Your task to perform on an android device: set the timer Image 0: 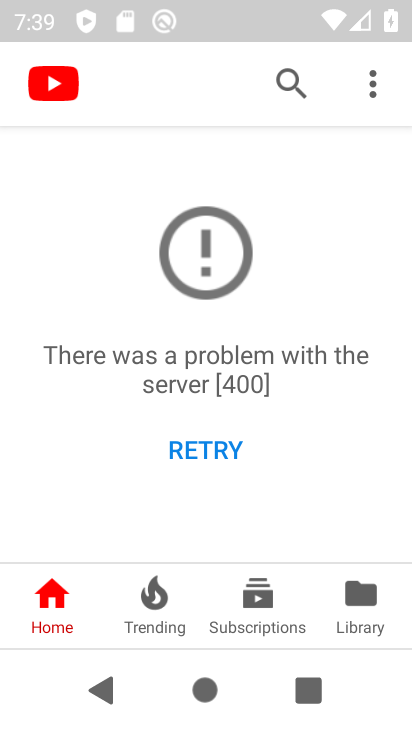
Step 0: press back button
Your task to perform on an android device: set the timer Image 1: 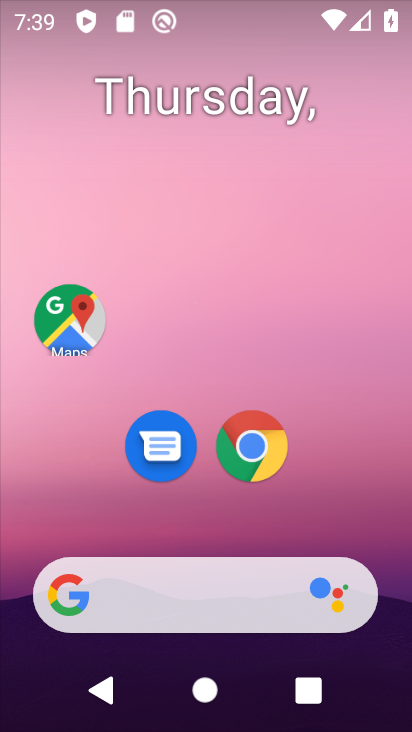
Step 1: drag from (324, 591) to (272, 0)
Your task to perform on an android device: set the timer Image 2: 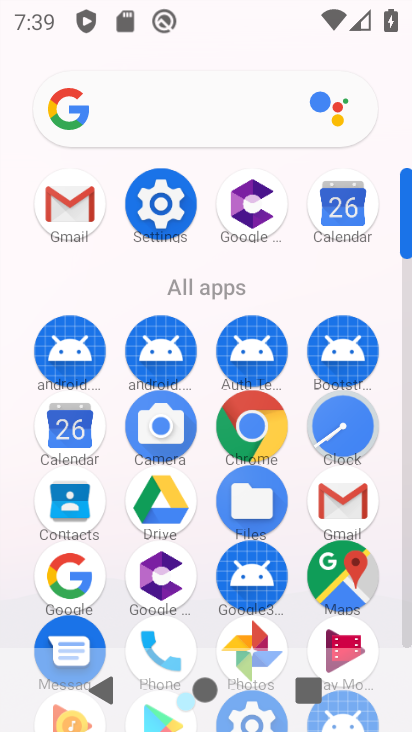
Step 2: click (336, 446)
Your task to perform on an android device: set the timer Image 3: 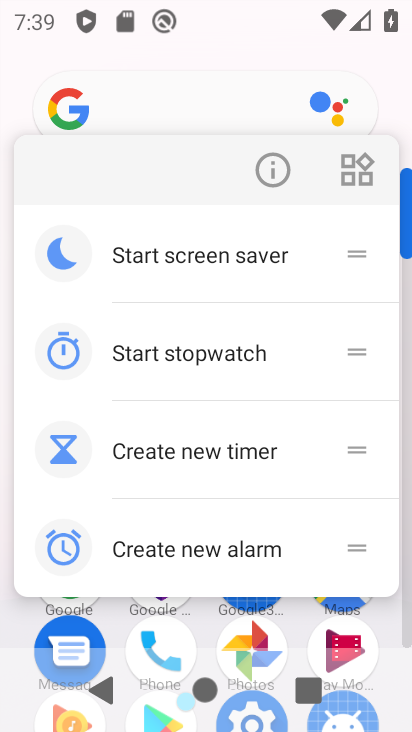
Step 3: click (409, 427)
Your task to perform on an android device: set the timer Image 4: 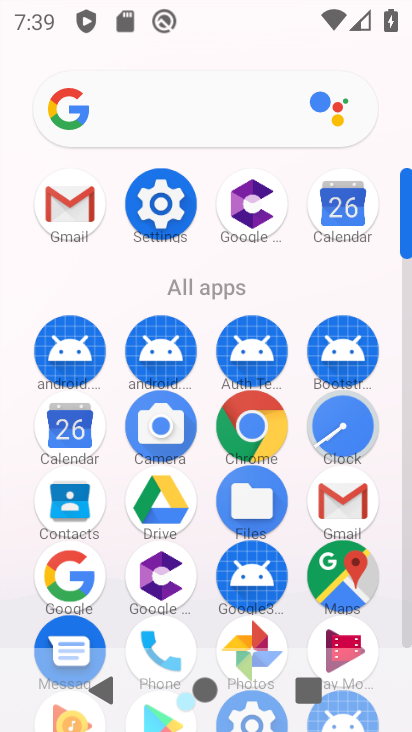
Step 4: click (338, 423)
Your task to perform on an android device: set the timer Image 5: 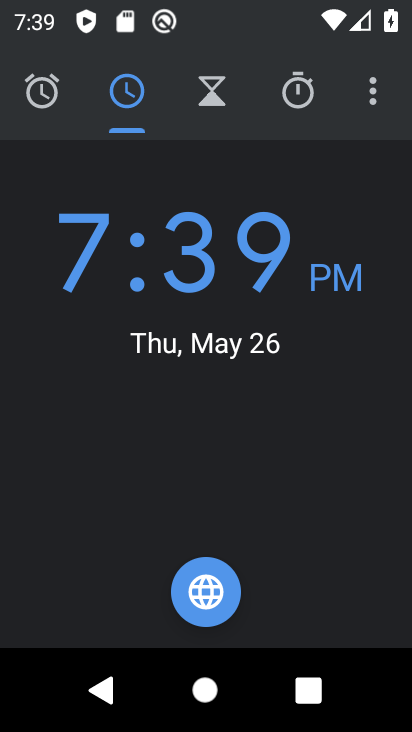
Step 5: click (225, 100)
Your task to perform on an android device: set the timer Image 6: 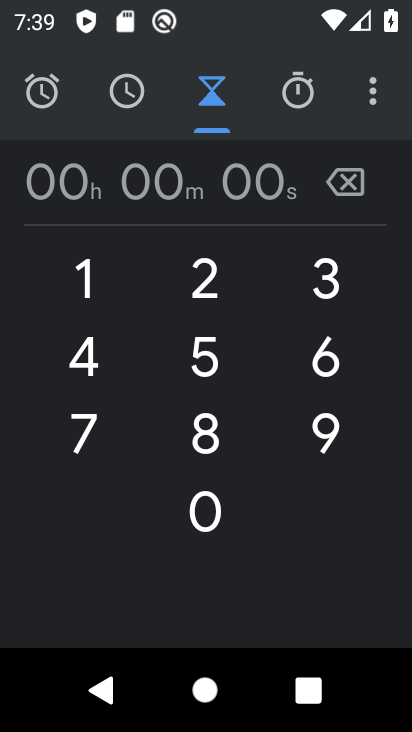
Step 6: click (321, 93)
Your task to perform on an android device: set the timer Image 7: 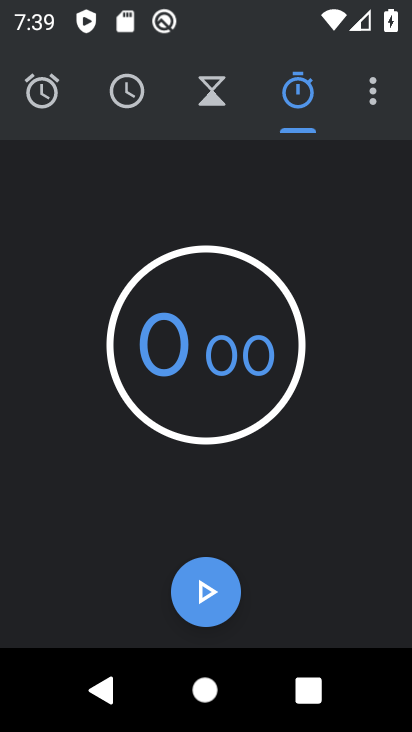
Step 7: click (224, 575)
Your task to perform on an android device: set the timer Image 8: 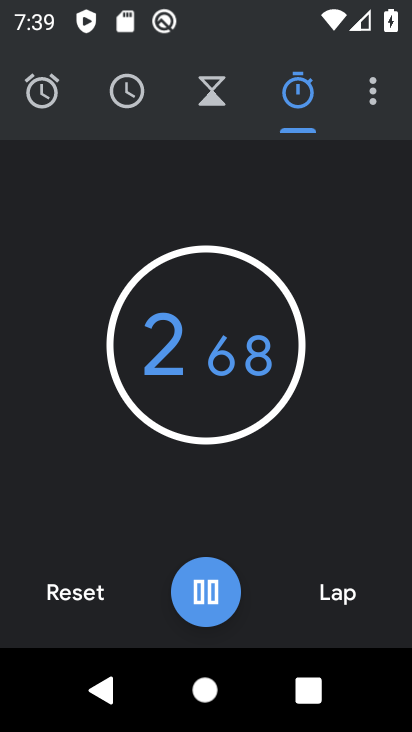
Step 8: click (196, 584)
Your task to perform on an android device: set the timer Image 9: 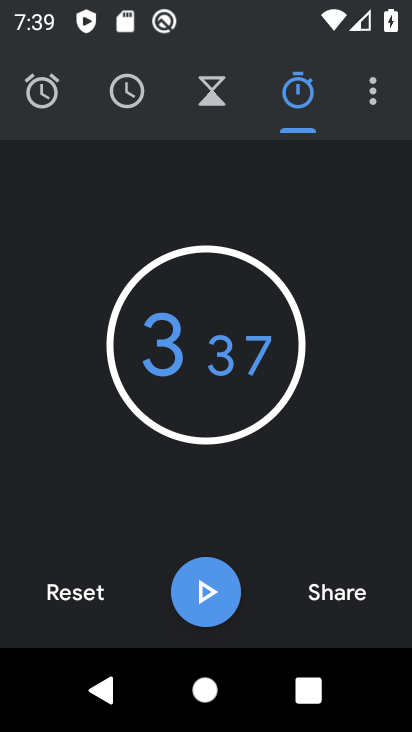
Step 9: task complete